Your task to perform on an android device: uninstall "Cash App" Image 0: 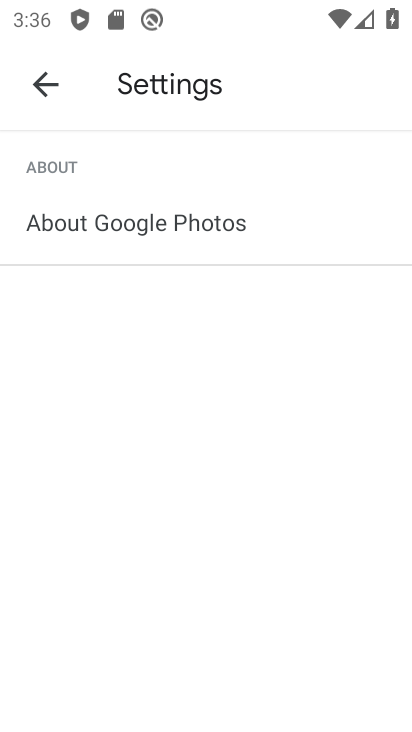
Step 0: press home button
Your task to perform on an android device: uninstall "Cash App" Image 1: 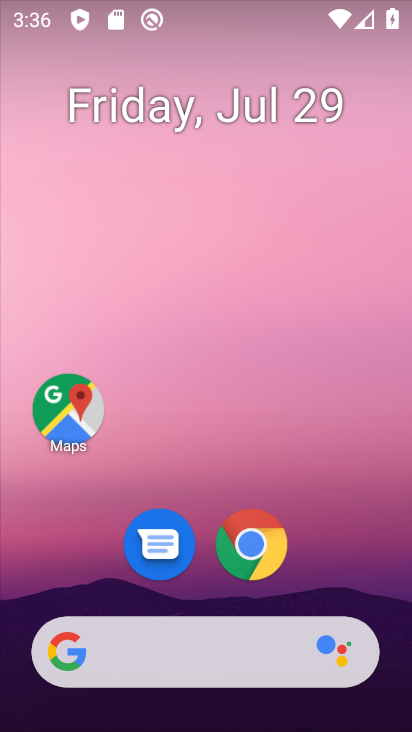
Step 1: drag from (213, 724) to (212, 453)
Your task to perform on an android device: uninstall "Cash App" Image 2: 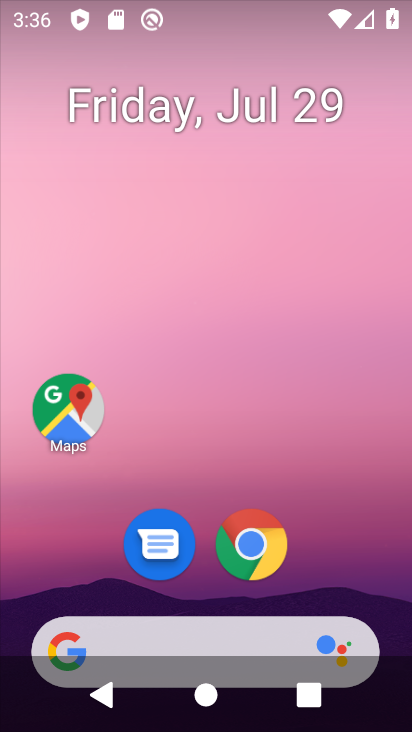
Step 2: drag from (243, 724) to (232, 116)
Your task to perform on an android device: uninstall "Cash App" Image 3: 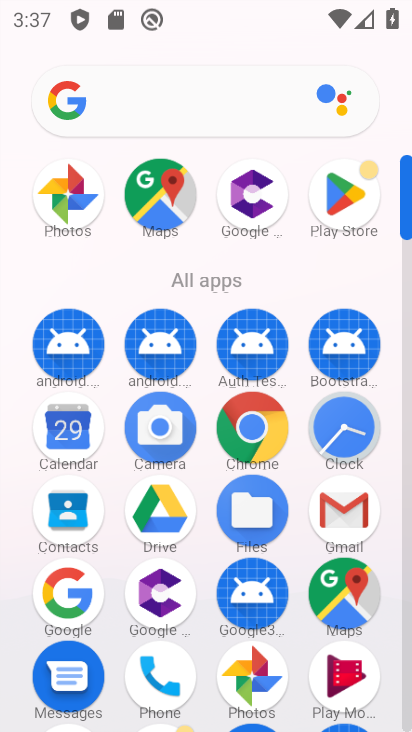
Step 3: click (344, 198)
Your task to perform on an android device: uninstall "Cash App" Image 4: 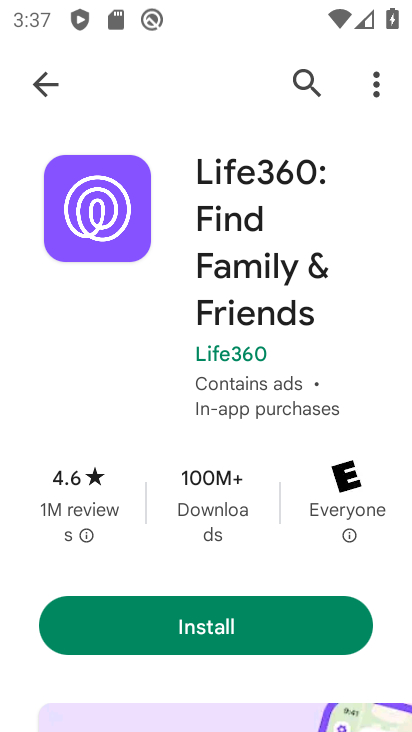
Step 4: click (309, 83)
Your task to perform on an android device: uninstall "Cash App" Image 5: 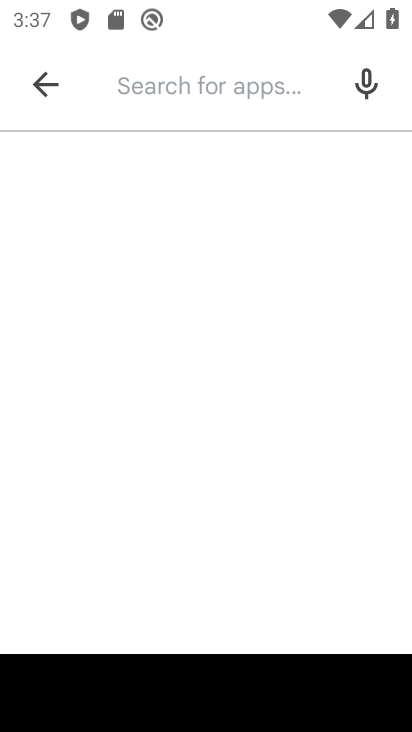
Step 5: type "Cash App"
Your task to perform on an android device: uninstall "Cash App" Image 6: 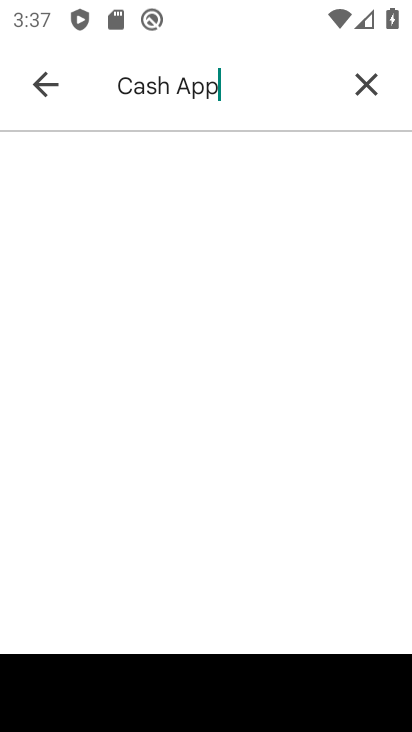
Step 6: type ""
Your task to perform on an android device: uninstall "Cash App" Image 7: 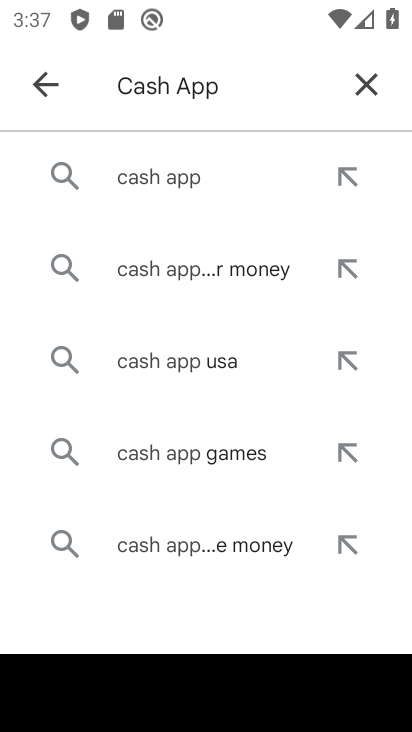
Step 7: click (153, 165)
Your task to perform on an android device: uninstall "Cash App" Image 8: 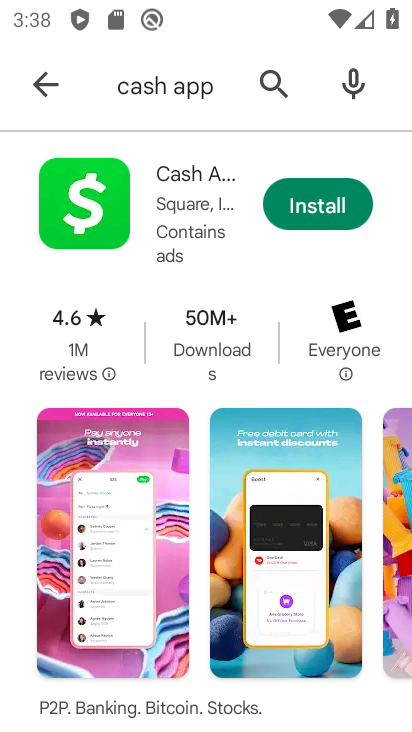
Step 8: click (177, 206)
Your task to perform on an android device: uninstall "Cash App" Image 9: 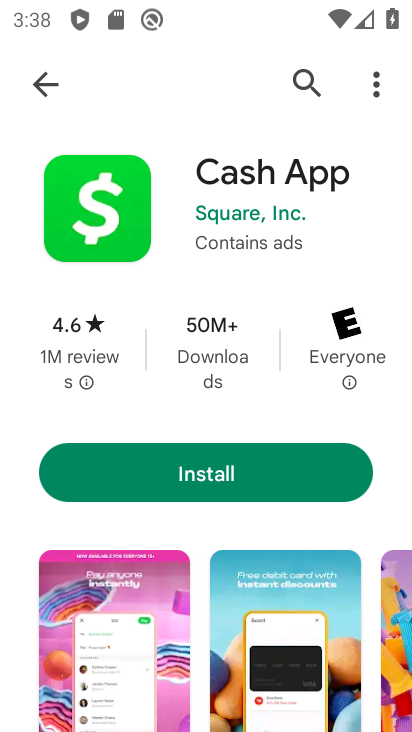
Step 9: task complete